Your task to perform on an android device: Do I have any events today? Image 0: 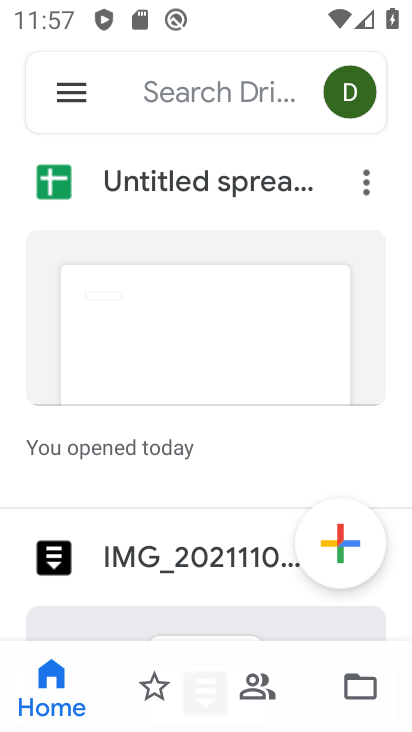
Step 0: press home button
Your task to perform on an android device: Do I have any events today? Image 1: 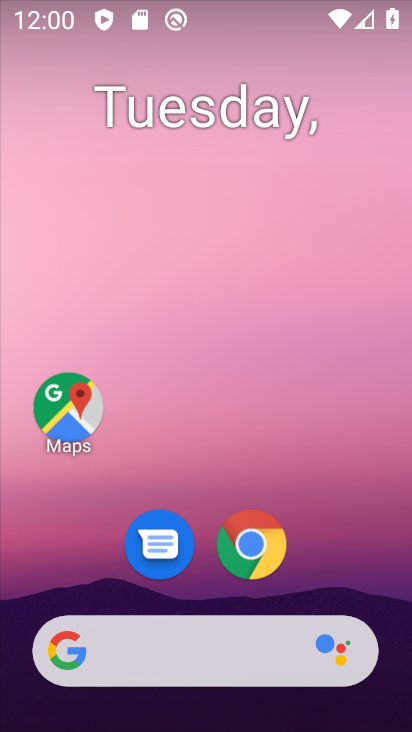
Step 1: task complete